Your task to perform on an android device: Go to privacy settings Image 0: 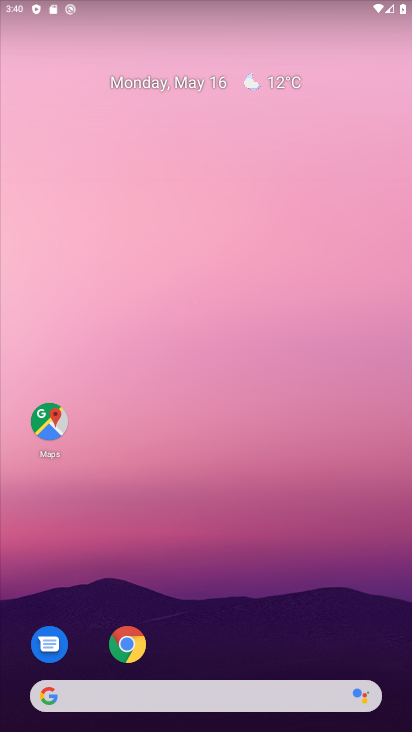
Step 0: drag from (221, 645) to (313, 111)
Your task to perform on an android device: Go to privacy settings Image 1: 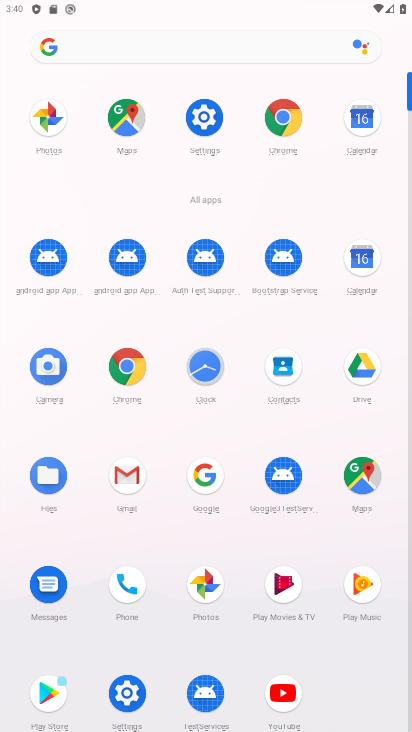
Step 1: click (201, 109)
Your task to perform on an android device: Go to privacy settings Image 2: 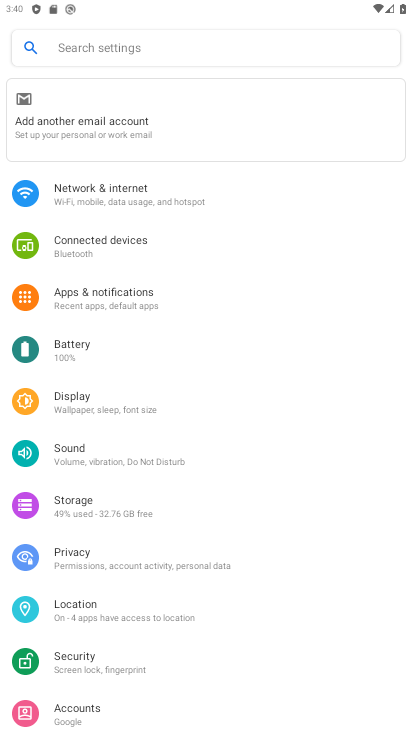
Step 2: click (79, 545)
Your task to perform on an android device: Go to privacy settings Image 3: 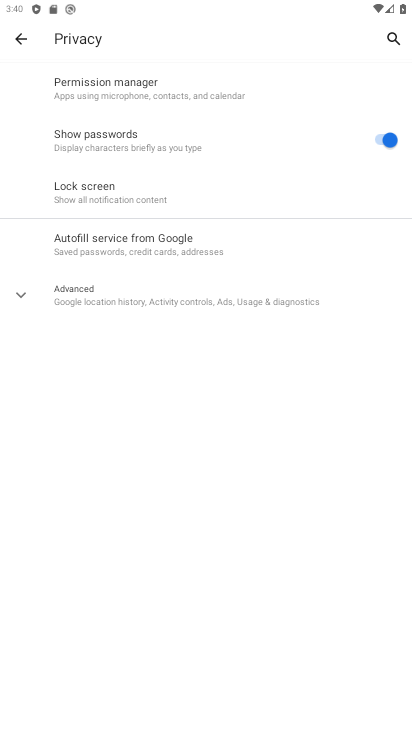
Step 3: task complete